Your task to perform on an android device: open the mobile data screen to see how much data has been used Image 0: 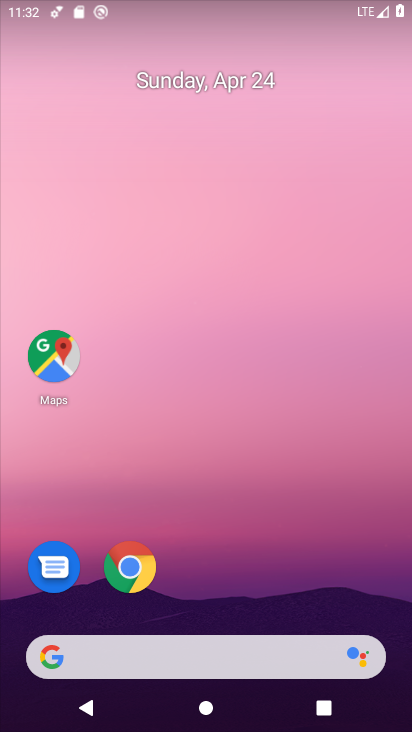
Step 0: drag from (242, 614) to (292, 86)
Your task to perform on an android device: open the mobile data screen to see how much data has been used Image 1: 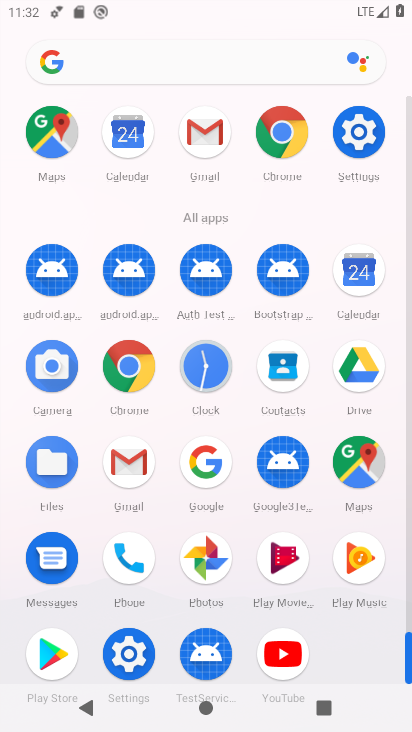
Step 1: click (376, 133)
Your task to perform on an android device: open the mobile data screen to see how much data has been used Image 2: 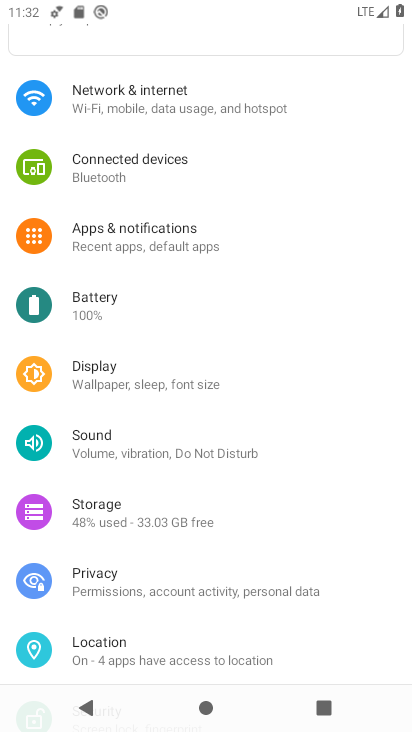
Step 2: drag from (265, 250) to (206, 705)
Your task to perform on an android device: open the mobile data screen to see how much data has been used Image 3: 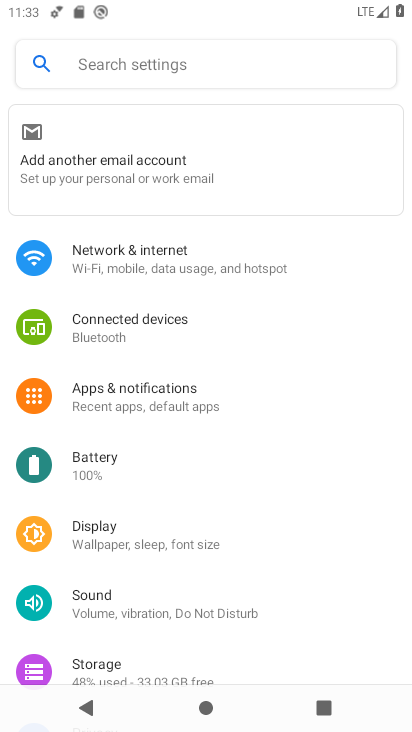
Step 3: click (189, 265)
Your task to perform on an android device: open the mobile data screen to see how much data has been used Image 4: 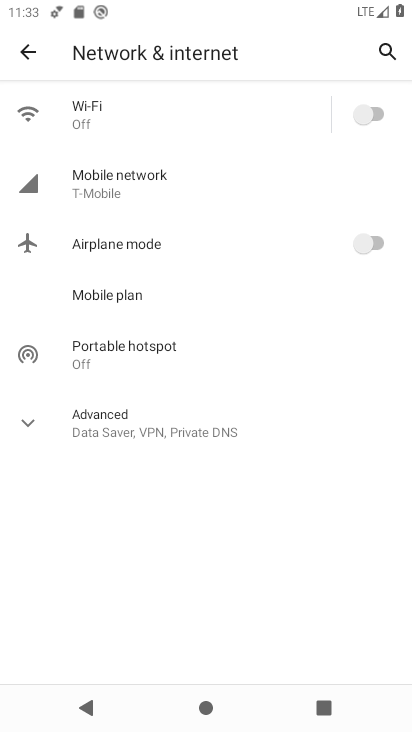
Step 4: click (192, 194)
Your task to perform on an android device: open the mobile data screen to see how much data has been used Image 5: 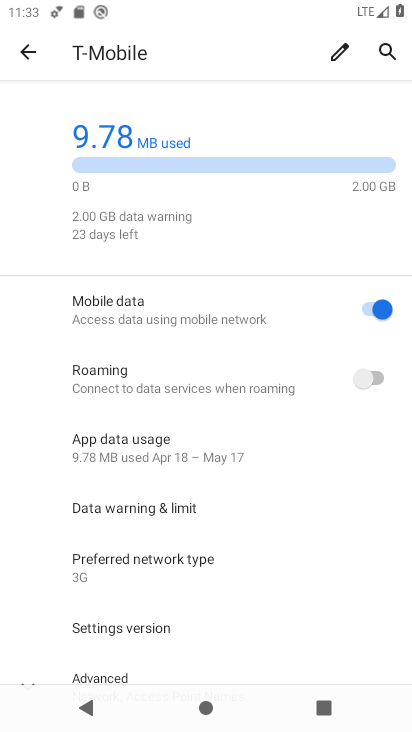
Step 5: click (217, 461)
Your task to perform on an android device: open the mobile data screen to see how much data has been used Image 6: 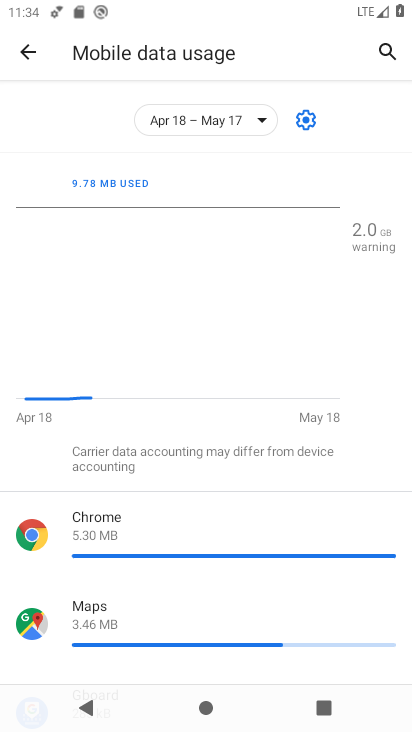
Step 6: task complete